Your task to perform on an android device: Go to ESPN.com Image 0: 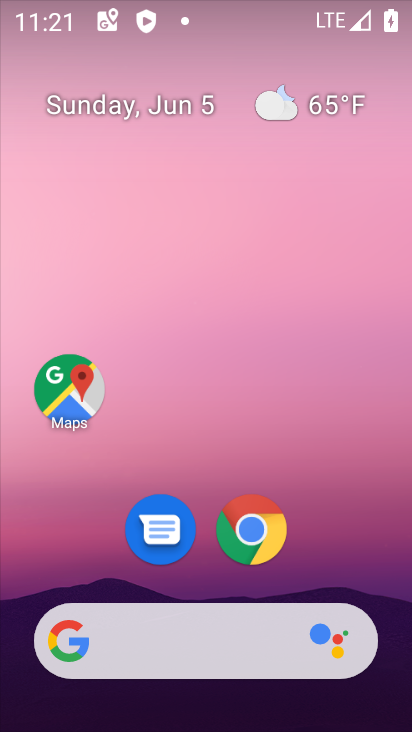
Step 0: click (211, 638)
Your task to perform on an android device: Go to ESPN.com Image 1: 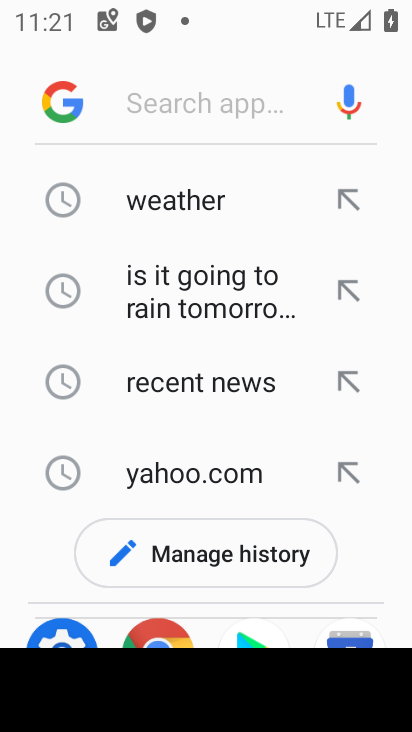
Step 1: type "espn.com"
Your task to perform on an android device: Go to ESPN.com Image 2: 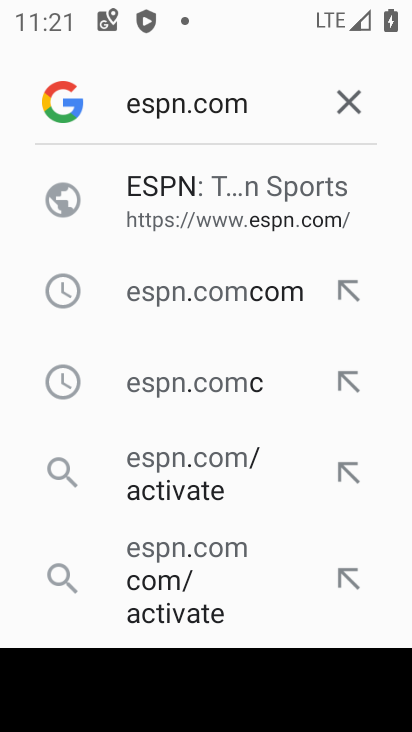
Step 2: click (192, 221)
Your task to perform on an android device: Go to ESPN.com Image 3: 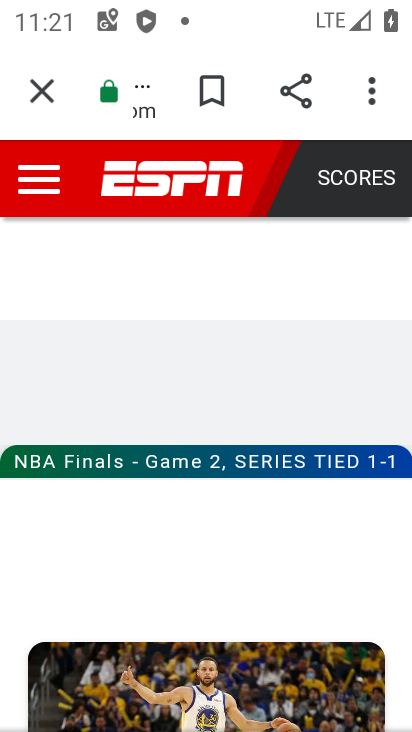
Step 3: task complete